Your task to perform on an android device: find which apps use the phone's location Image 0: 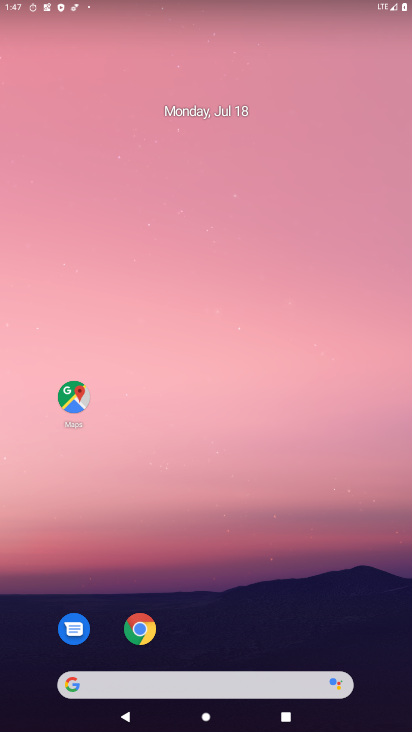
Step 0: press home button
Your task to perform on an android device: find which apps use the phone's location Image 1: 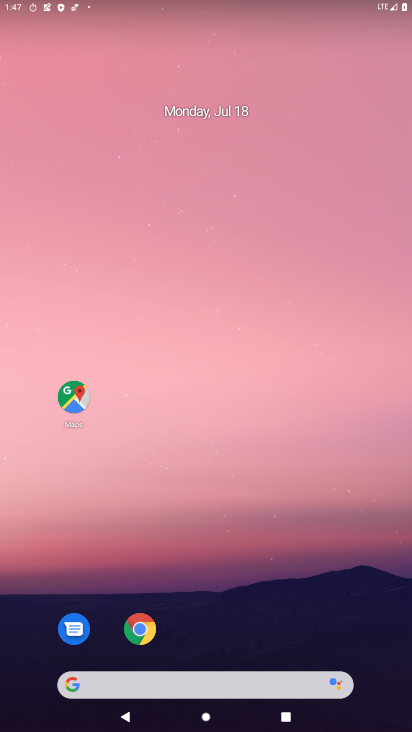
Step 1: drag from (211, 650) to (219, 52)
Your task to perform on an android device: find which apps use the phone's location Image 2: 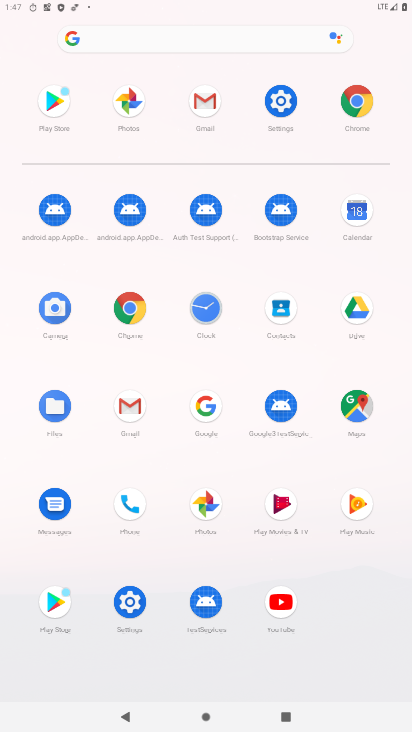
Step 2: click (132, 599)
Your task to perform on an android device: find which apps use the phone's location Image 3: 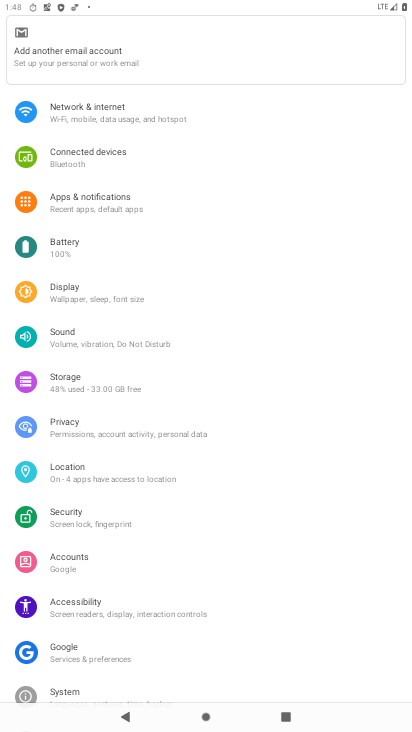
Step 3: click (96, 465)
Your task to perform on an android device: find which apps use the phone's location Image 4: 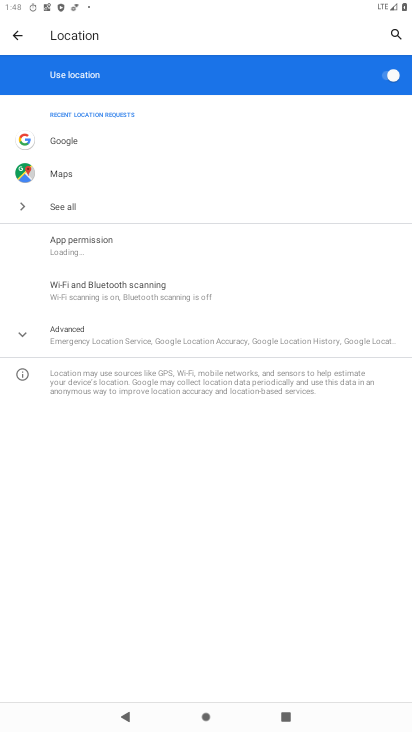
Step 4: click (24, 332)
Your task to perform on an android device: find which apps use the phone's location Image 5: 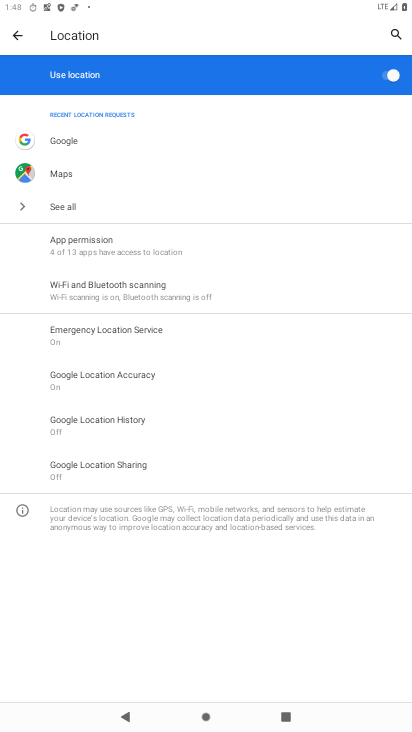
Step 5: click (82, 240)
Your task to perform on an android device: find which apps use the phone's location Image 6: 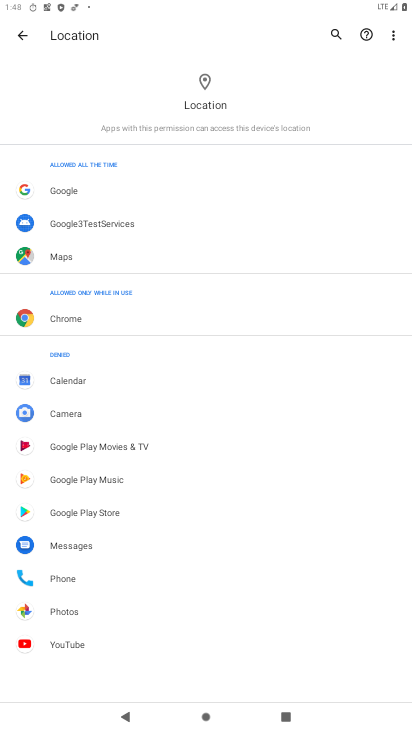
Step 6: task complete